Your task to perform on an android device: turn pop-ups on in chrome Image 0: 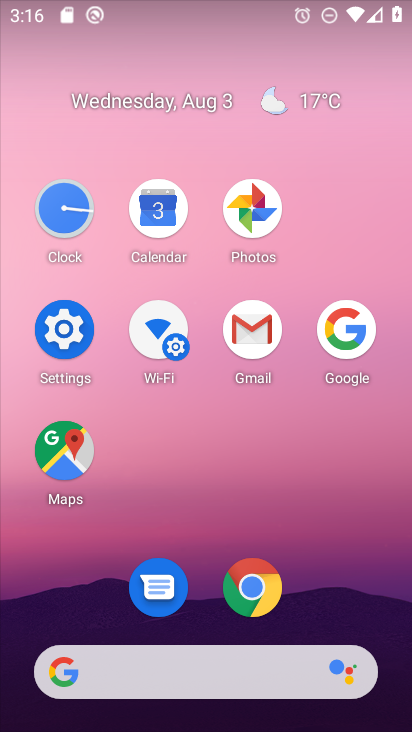
Step 0: click (262, 583)
Your task to perform on an android device: turn pop-ups on in chrome Image 1: 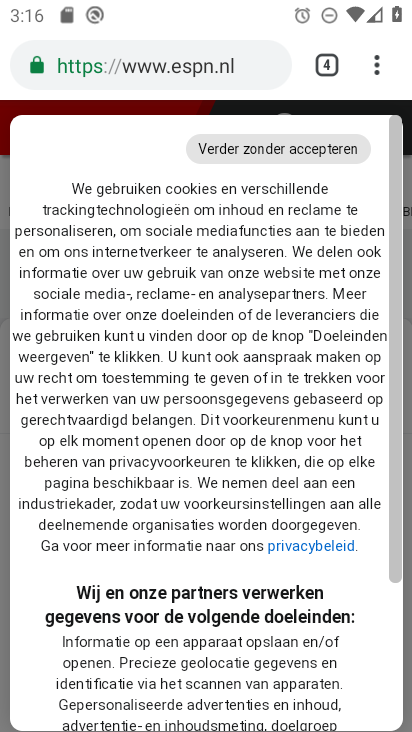
Step 1: click (378, 59)
Your task to perform on an android device: turn pop-ups on in chrome Image 2: 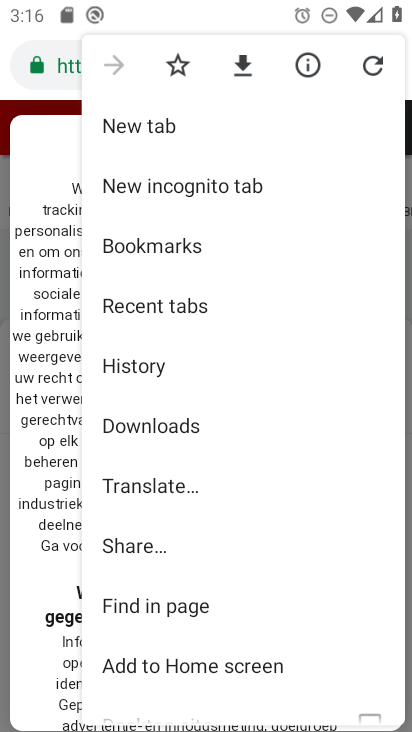
Step 2: drag from (255, 488) to (339, 2)
Your task to perform on an android device: turn pop-ups on in chrome Image 3: 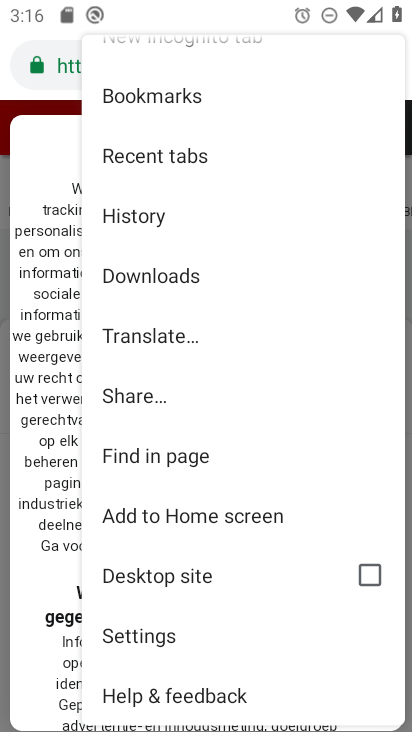
Step 3: click (159, 640)
Your task to perform on an android device: turn pop-ups on in chrome Image 4: 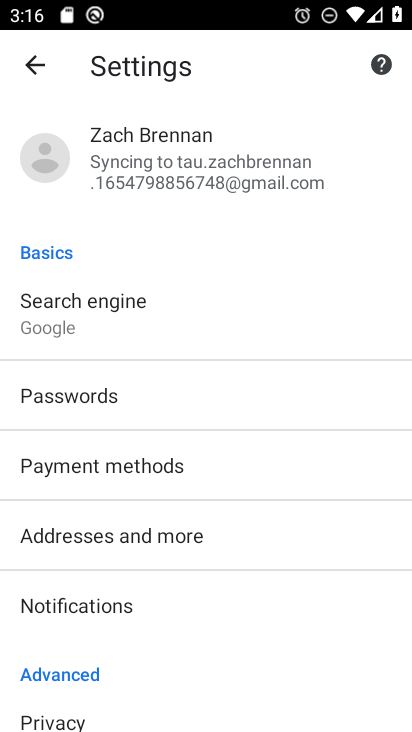
Step 4: drag from (109, 638) to (245, 175)
Your task to perform on an android device: turn pop-ups on in chrome Image 5: 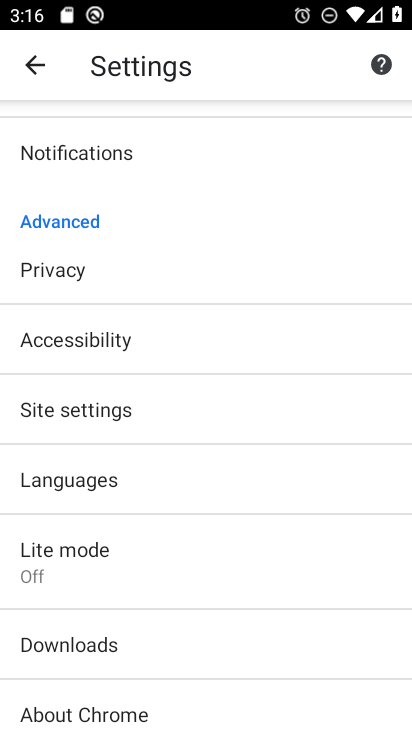
Step 5: click (112, 399)
Your task to perform on an android device: turn pop-ups on in chrome Image 6: 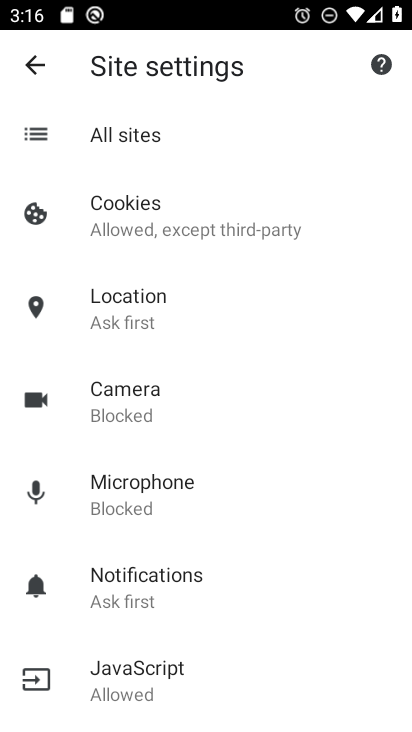
Step 6: drag from (146, 445) to (229, 61)
Your task to perform on an android device: turn pop-ups on in chrome Image 7: 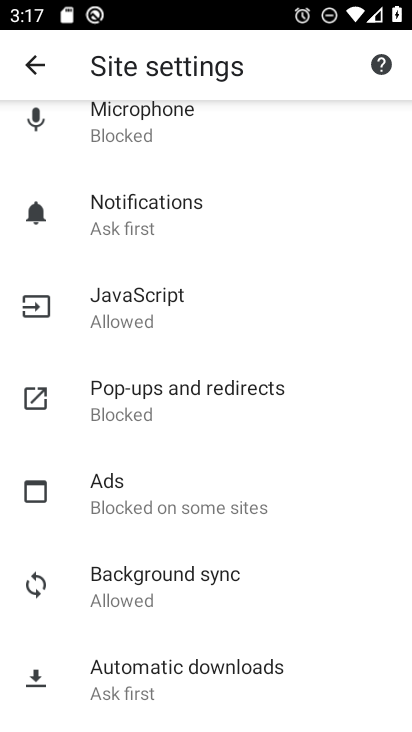
Step 7: click (211, 394)
Your task to perform on an android device: turn pop-ups on in chrome Image 8: 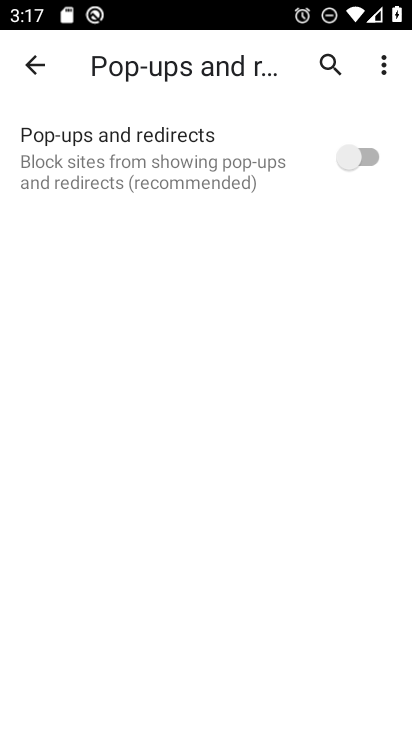
Step 8: click (354, 143)
Your task to perform on an android device: turn pop-ups on in chrome Image 9: 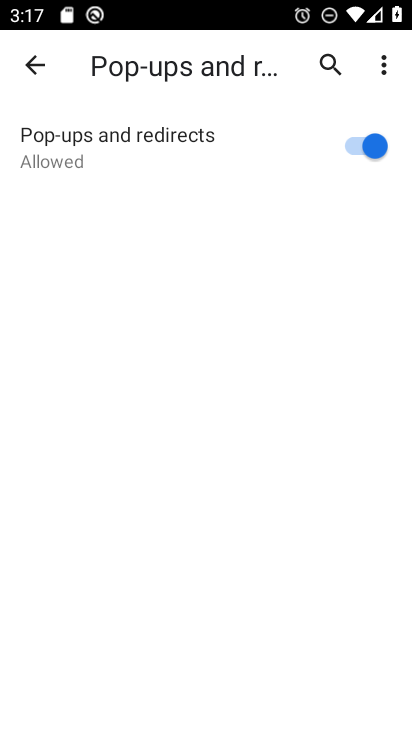
Step 9: task complete